Your task to perform on an android device: turn off airplane mode Image 0: 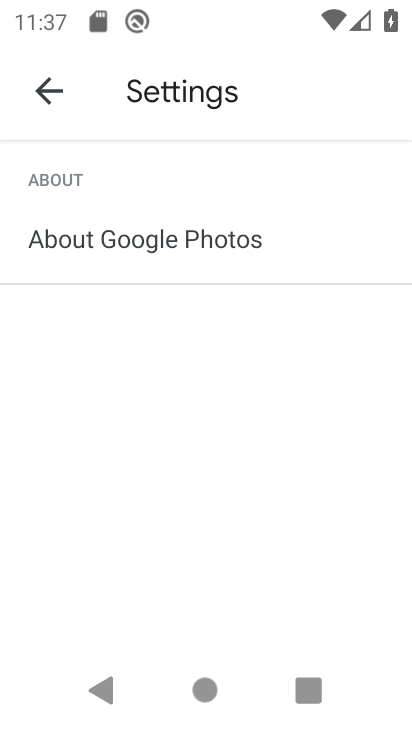
Step 0: press home button
Your task to perform on an android device: turn off airplane mode Image 1: 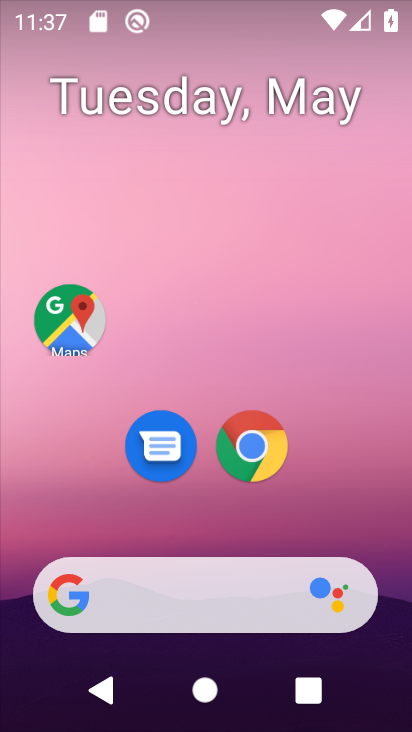
Step 1: task complete